Your task to perform on an android device: choose inbox layout in the gmail app Image 0: 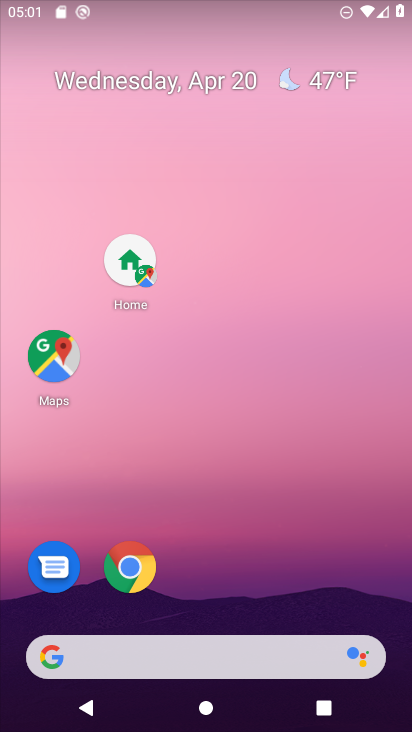
Step 0: drag from (198, 620) to (130, 149)
Your task to perform on an android device: choose inbox layout in the gmail app Image 1: 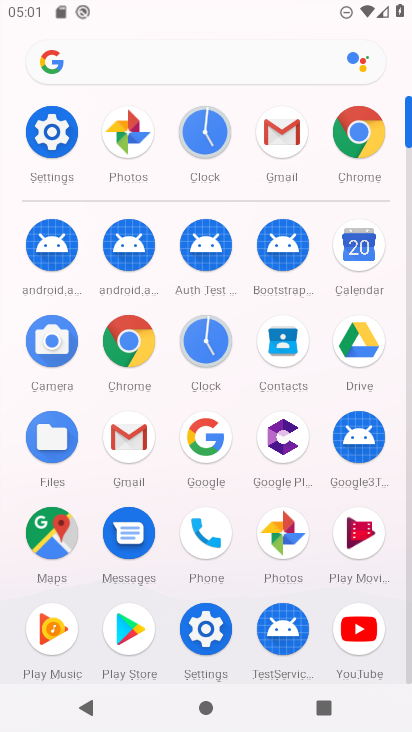
Step 1: click (265, 142)
Your task to perform on an android device: choose inbox layout in the gmail app Image 2: 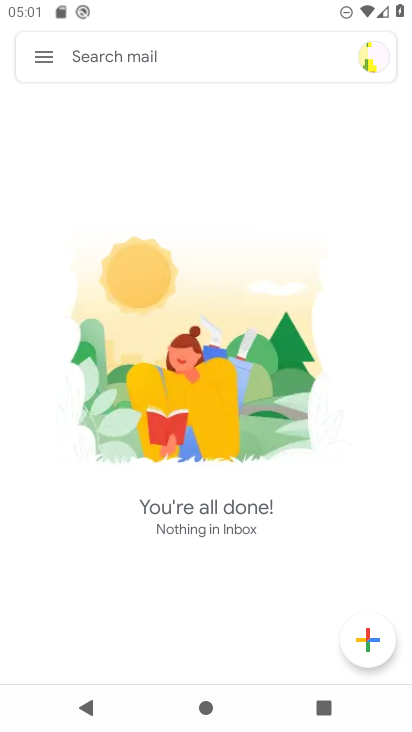
Step 2: click (35, 54)
Your task to perform on an android device: choose inbox layout in the gmail app Image 3: 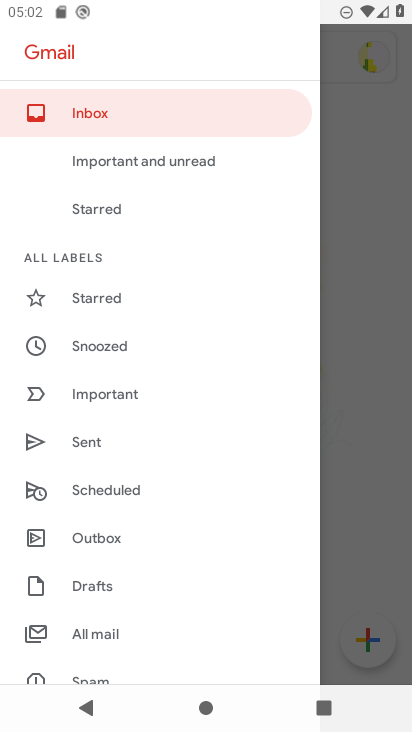
Step 3: drag from (165, 611) to (135, 220)
Your task to perform on an android device: choose inbox layout in the gmail app Image 4: 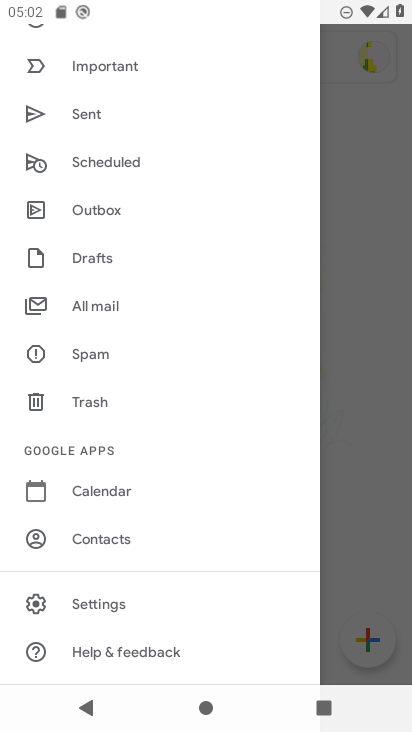
Step 4: click (148, 603)
Your task to perform on an android device: choose inbox layout in the gmail app Image 5: 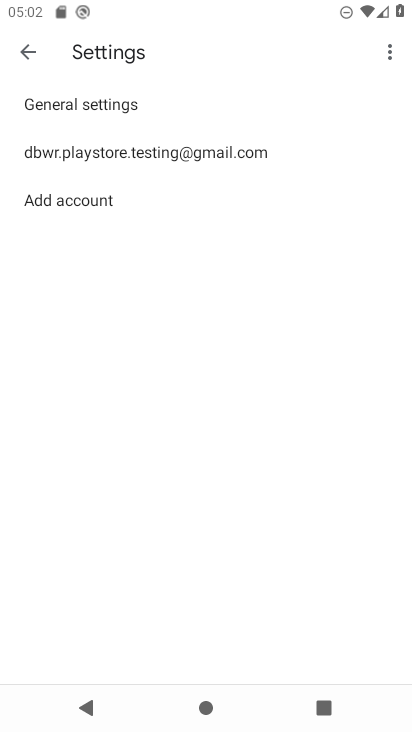
Step 5: click (242, 157)
Your task to perform on an android device: choose inbox layout in the gmail app Image 6: 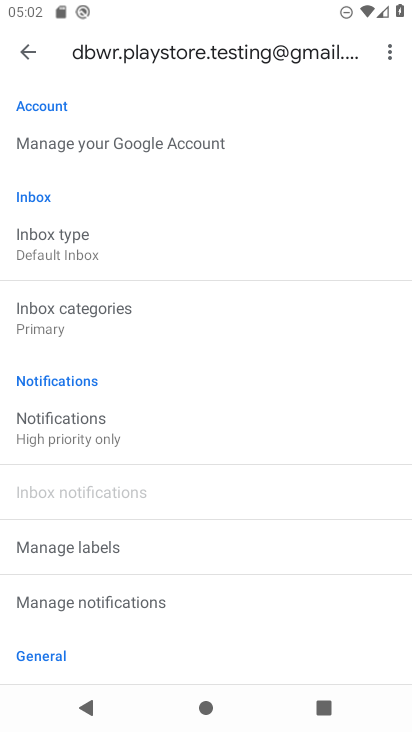
Step 6: click (86, 261)
Your task to perform on an android device: choose inbox layout in the gmail app Image 7: 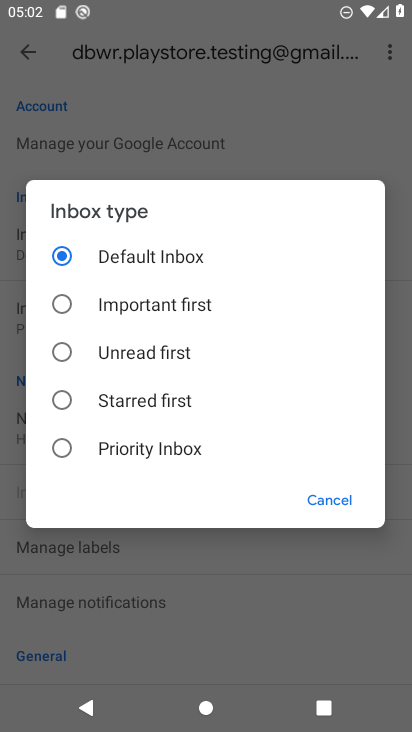
Step 7: click (171, 416)
Your task to perform on an android device: choose inbox layout in the gmail app Image 8: 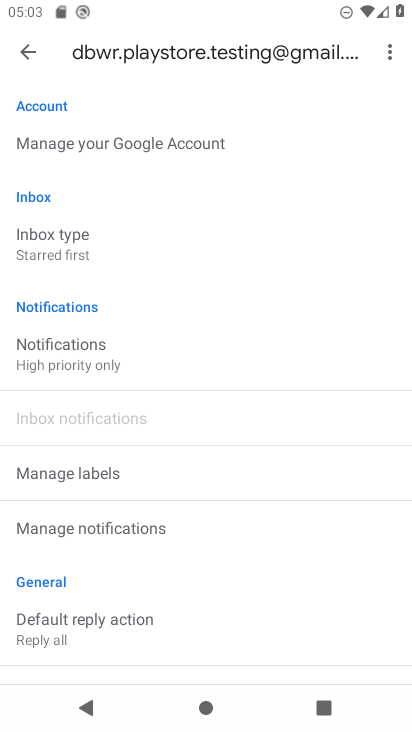
Step 8: click (55, 242)
Your task to perform on an android device: choose inbox layout in the gmail app Image 9: 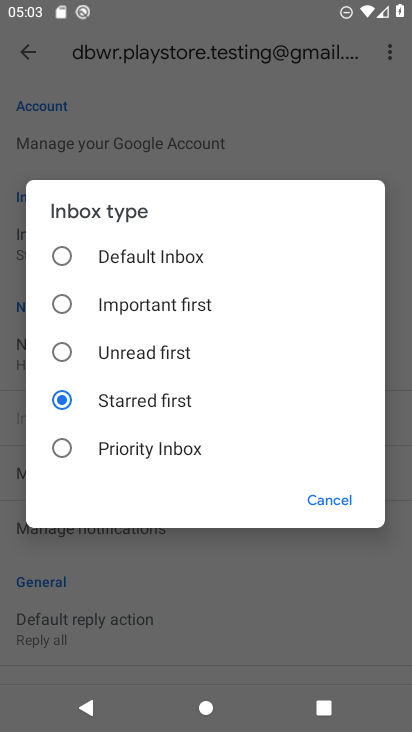
Step 9: click (171, 333)
Your task to perform on an android device: choose inbox layout in the gmail app Image 10: 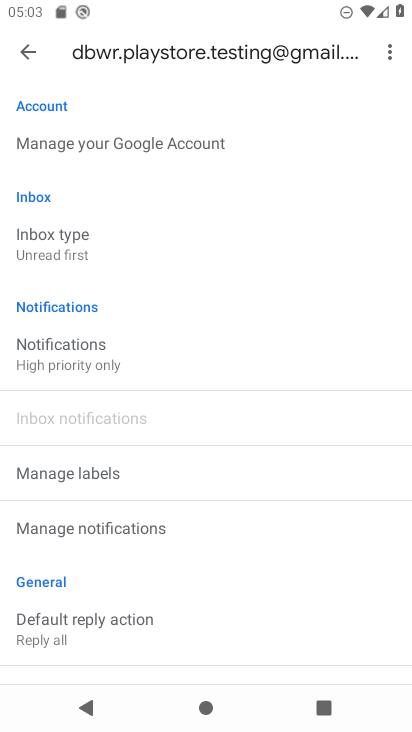
Step 10: task complete